Your task to perform on an android device: visit the assistant section in the google photos Image 0: 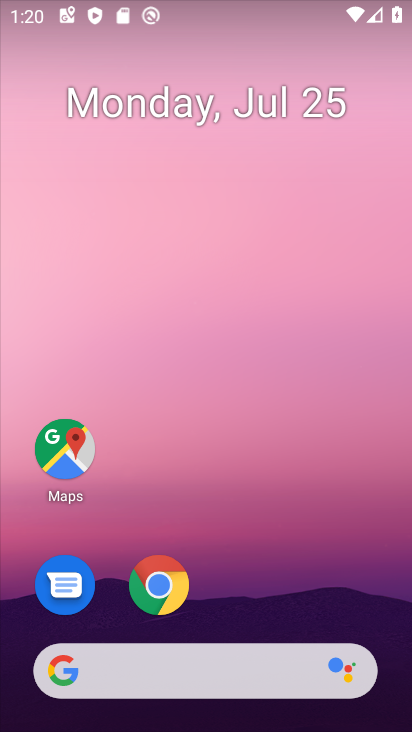
Step 0: drag from (238, 585) to (186, 0)
Your task to perform on an android device: visit the assistant section in the google photos Image 1: 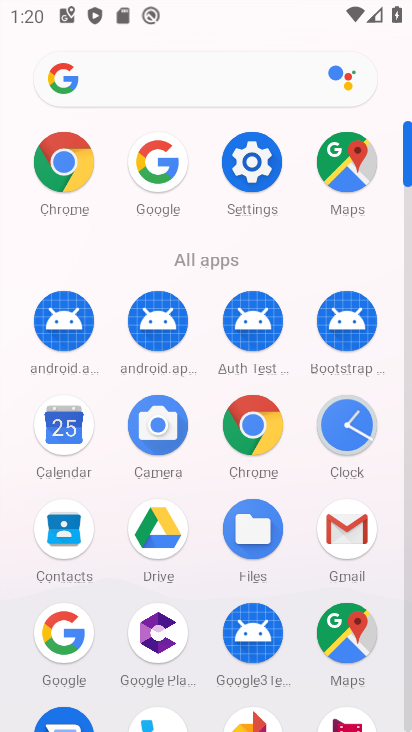
Step 1: drag from (204, 484) to (217, 149)
Your task to perform on an android device: visit the assistant section in the google photos Image 2: 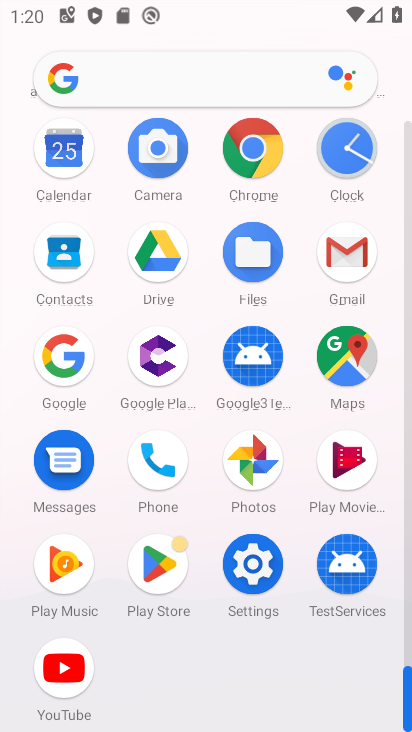
Step 2: click (252, 473)
Your task to perform on an android device: visit the assistant section in the google photos Image 3: 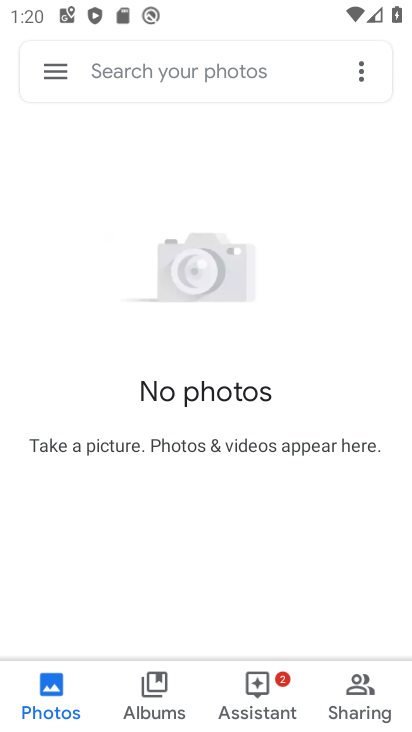
Step 3: click (242, 686)
Your task to perform on an android device: visit the assistant section in the google photos Image 4: 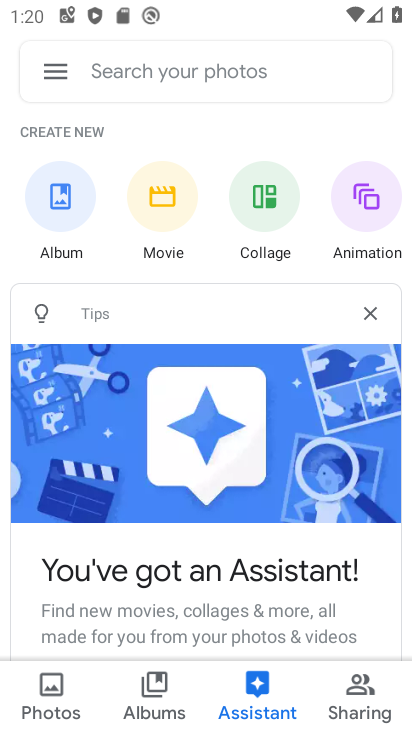
Step 4: task complete